Your task to perform on an android device: change your default location settings in chrome Image 0: 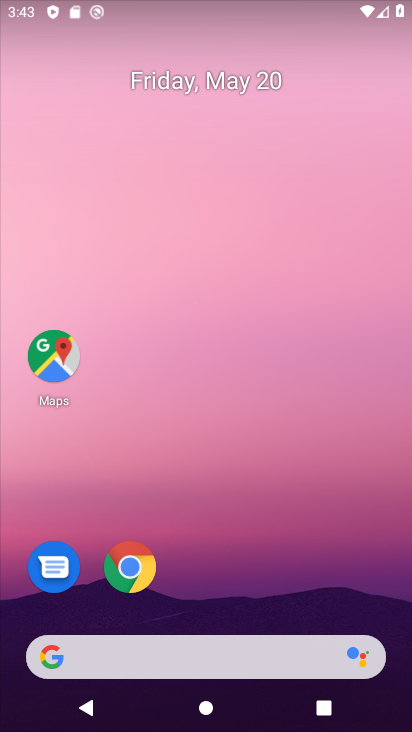
Step 0: click (134, 574)
Your task to perform on an android device: change your default location settings in chrome Image 1: 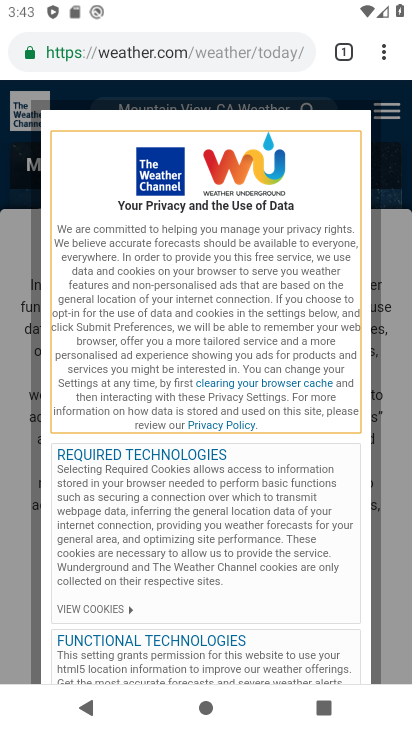
Step 1: click (395, 48)
Your task to perform on an android device: change your default location settings in chrome Image 2: 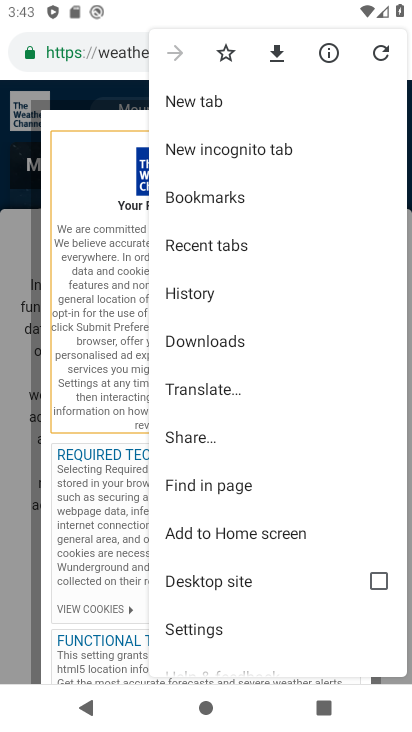
Step 2: click (205, 638)
Your task to perform on an android device: change your default location settings in chrome Image 3: 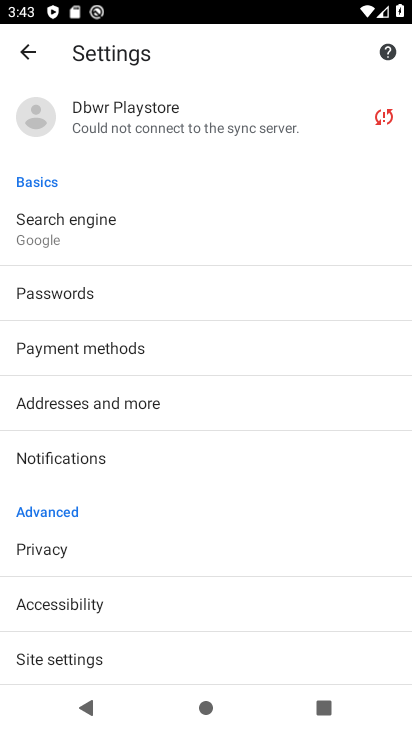
Step 3: drag from (205, 638) to (197, 54)
Your task to perform on an android device: change your default location settings in chrome Image 4: 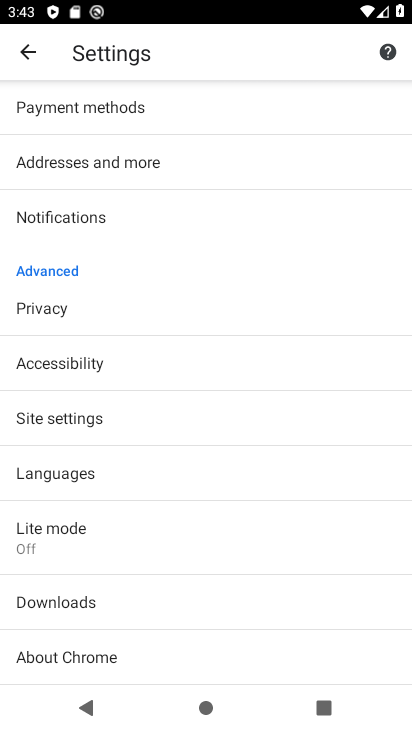
Step 4: drag from (173, 132) to (167, 729)
Your task to perform on an android device: change your default location settings in chrome Image 5: 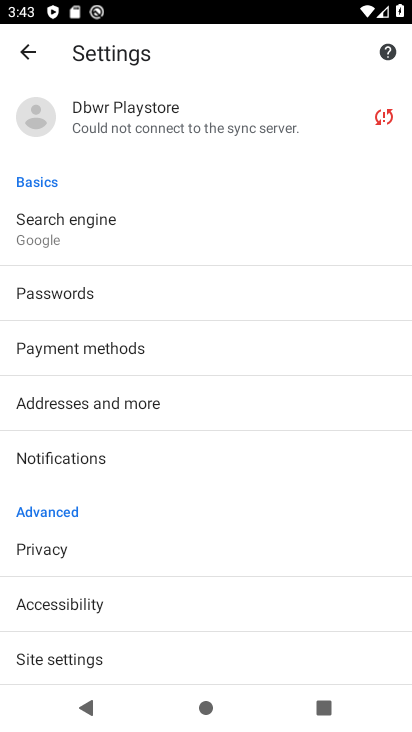
Step 5: click (96, 665)
Your task to perform on an android device: change your default location settings in chrome Image 6: 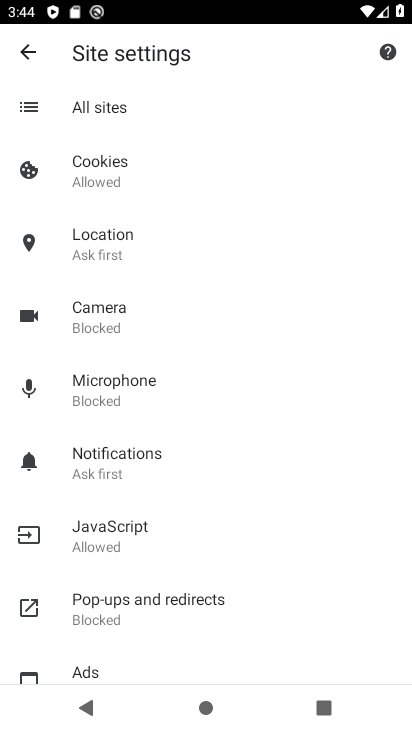
Step 6: click (143, 249)
Your task to perform on an android device: change your default location settings in chrome Image 7: 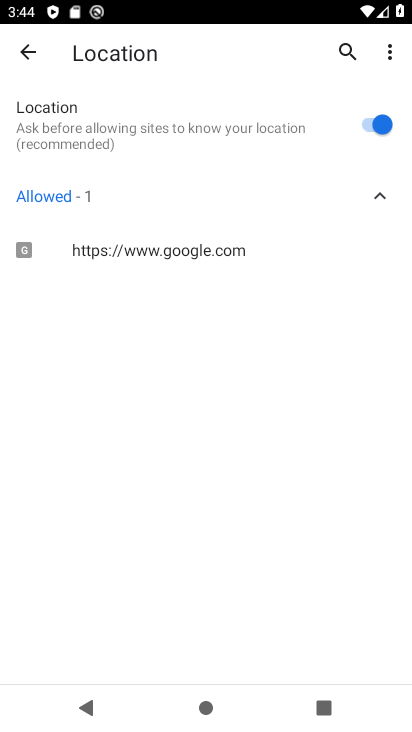
Step 7: click (384, 119)
Your task to perform on an android device: change your default location settings in chrome Image 8: 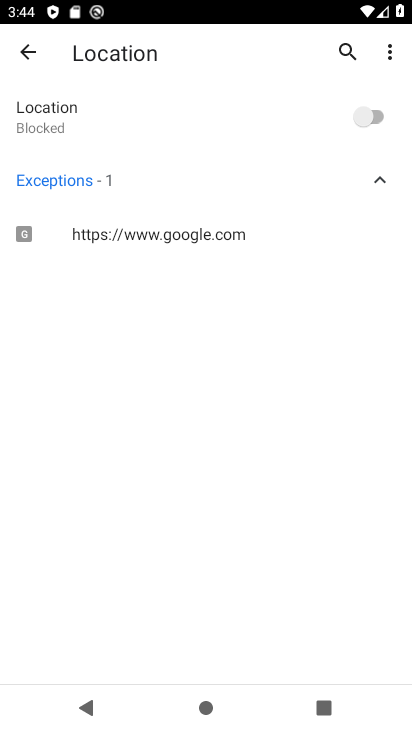
Step 8: task complete